Your task to perform on an android device: Open the calendar and show me this week's events? Image 0: 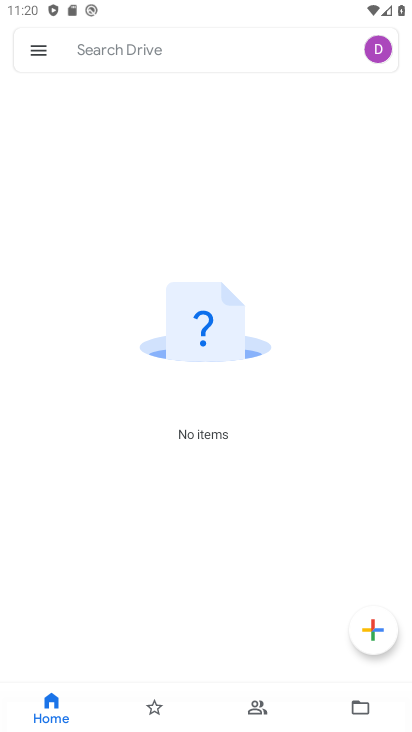
Step 0: press home button
Your task to perform on an android device: Open the calendar and show me this week's events? Image 1: 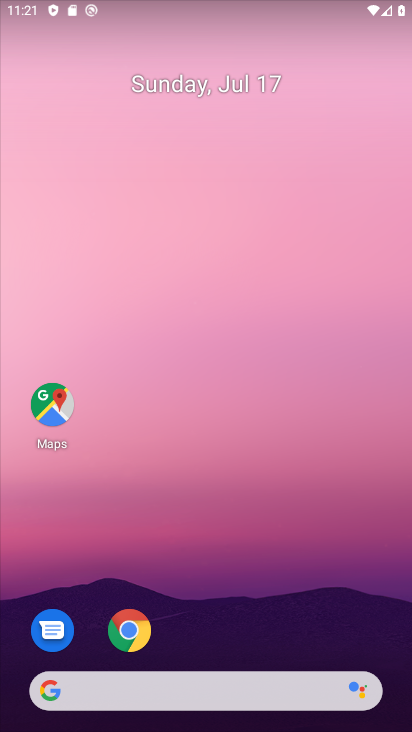
Step 1: drag from (211, 616) to (277, 25)
Your task to perform on an android device: Open the calendar and show me this week's events? Image 2: 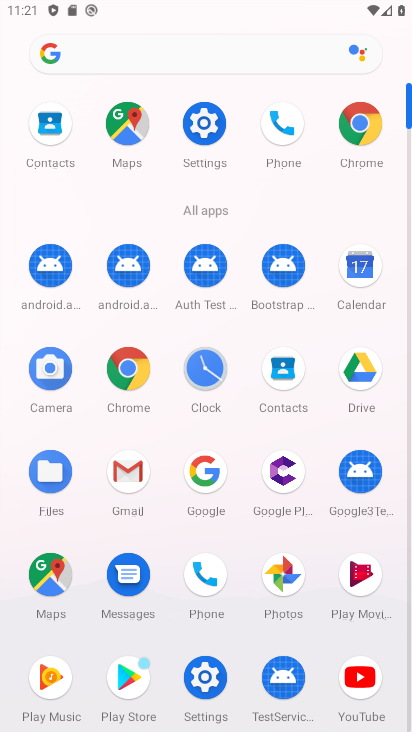
Step 2: click (359, 280)
Your task to perform on an android device: Open the calendar and show me this week's events? Image 3: 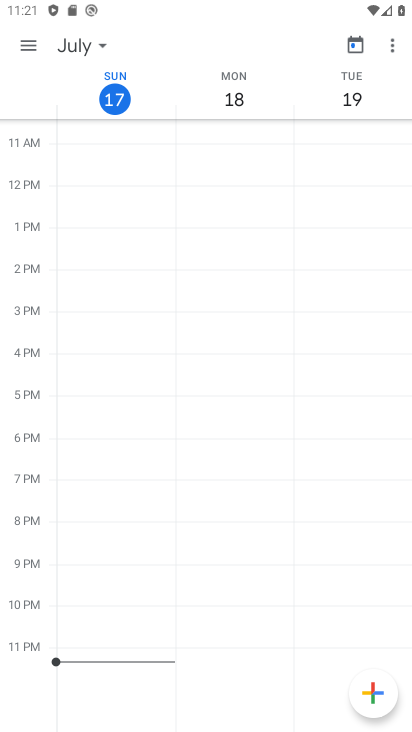
Step 3: click (25, 47)
Your task to perform on an android device: Open the calendar and show me this week's events? Image 4: 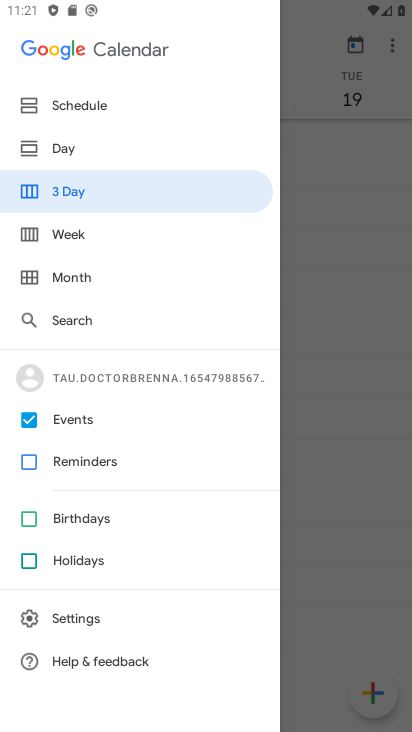
Step 4: click (89, 236)
Your task to perform on an android device: Open the calendar and show me this week's events? Image 5: 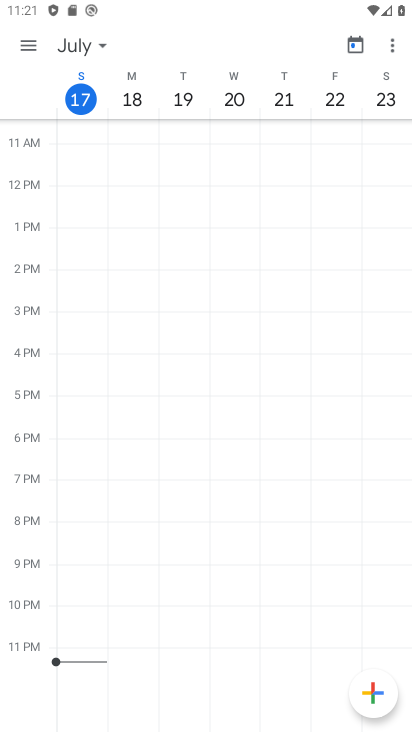
Step 5: task complete